Your task to perform on an android device: Search for seafood restaurants on Google Maps Image 0: 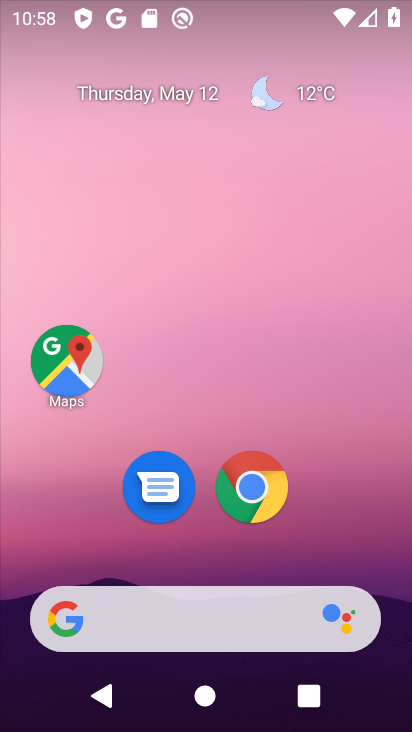
Step 0: click (60, 362)
Your task to perform on an android device: Search for seafood restaurants on Google Maps Image 1: 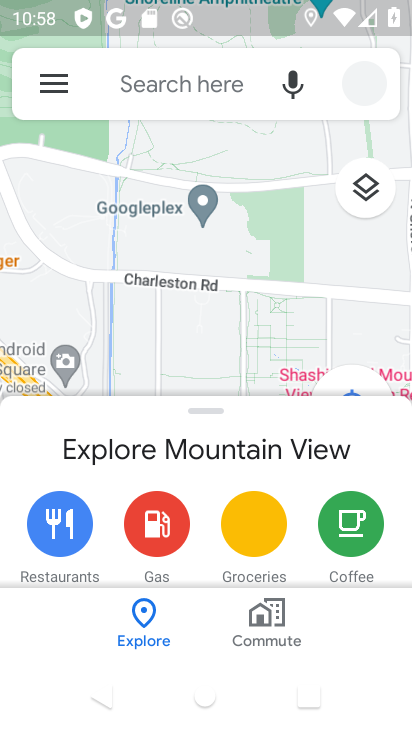
Step 1: click (139, 87)
Your task to perform on an android device: Search for seafood restaurants on Google Maps Image 2: 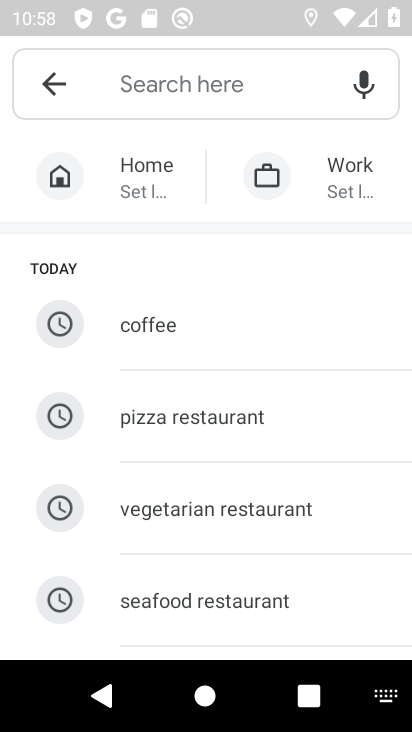
Step 2: type "seafood restaurant"
Your task to perform on an android device: Search for seafood restaurants on Google Maps Image 3: 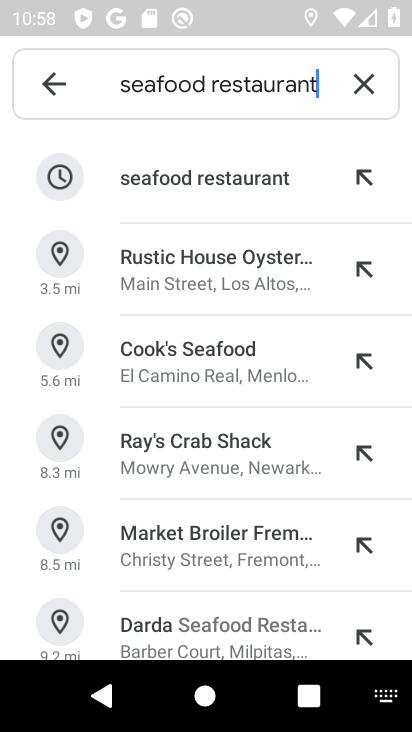
Step 3: click (216, 180)
Your task to perform on an android device: Search for seafood restaurants on Google Maps Image 4: 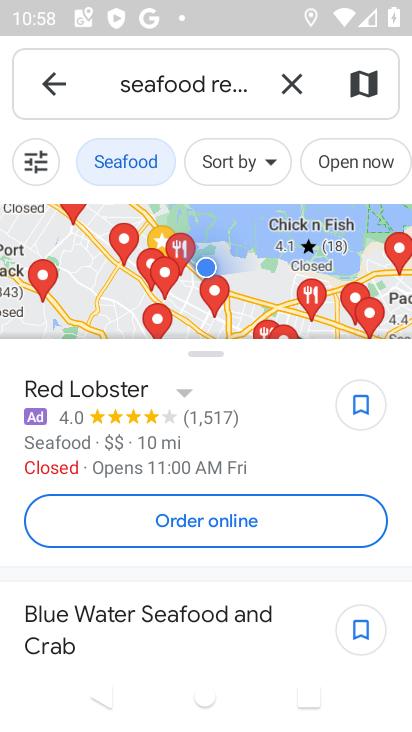
Step 4: task complete